Your task to perform on an android device: Go to Amazon Image 0: 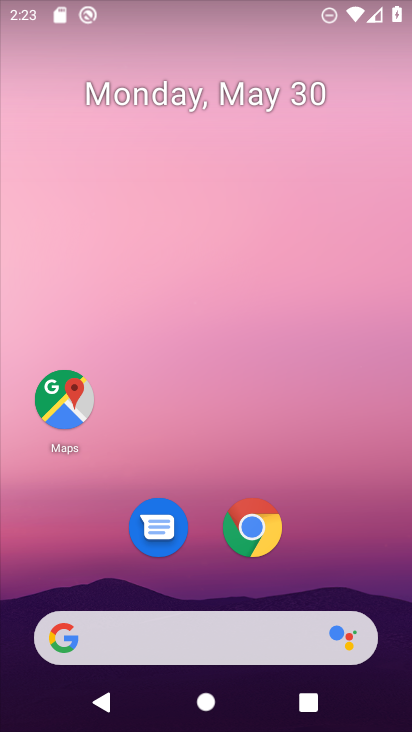
Step 0: drag from (306, 409) to (259, 115)
Your task to perform on an android device: Go to Amazon Image 1: 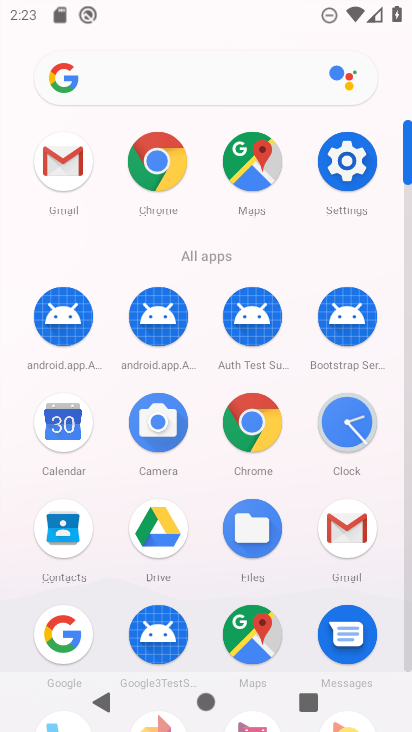
Step 1: click (167, 163)
Your task to perform on an android device: Go to Amazon Image 2: 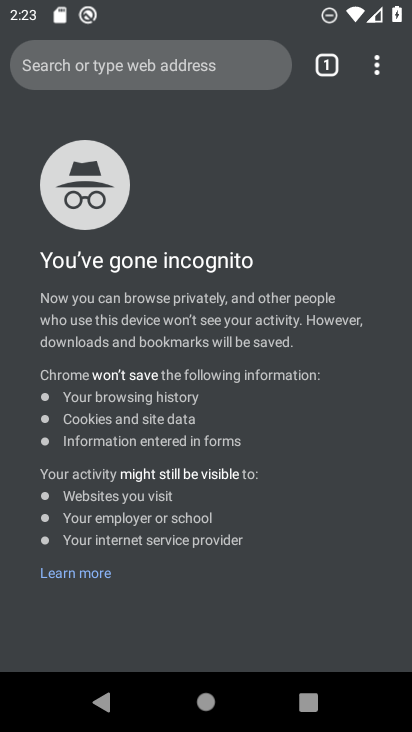
Step 2: drag from (375, 68) to (124, 120)
Your task to perform on an android device: Go to Amazon Image 3: 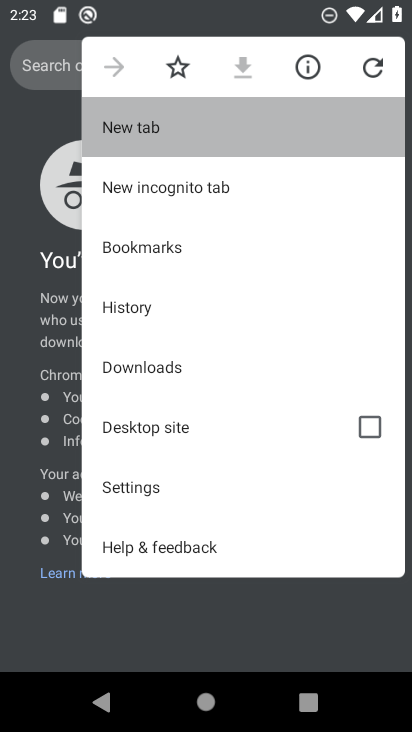
Step 3: click (124, 120)
Your task to perform on an android device: Go to Amazon Image 4: 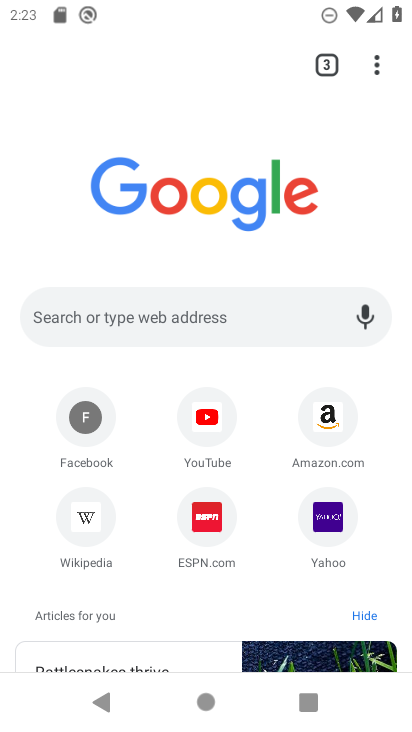
Step 4: click (325, 420)
Your task to perform on an android device: Go to Amazon Image 5: 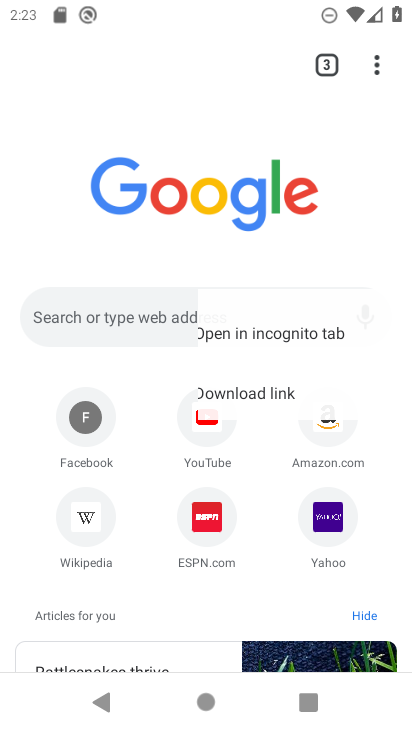
Step 5: click (329, 419)
Your task to perform on an android device: Go to Amazon Image 6: 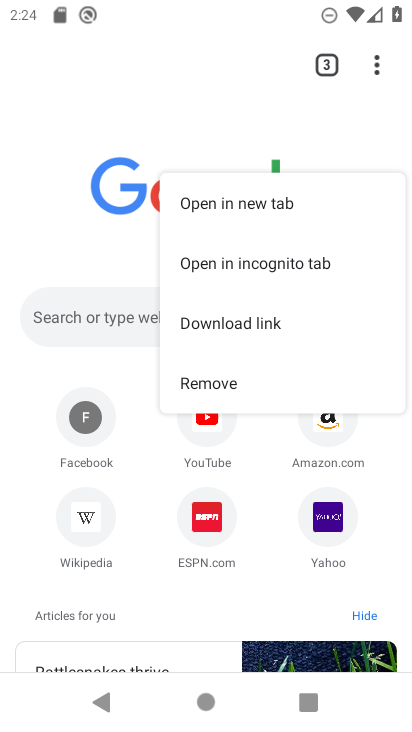
Step 6: click (332, 418)
Your task to perform on an android device: Go to Amazon Image 7: 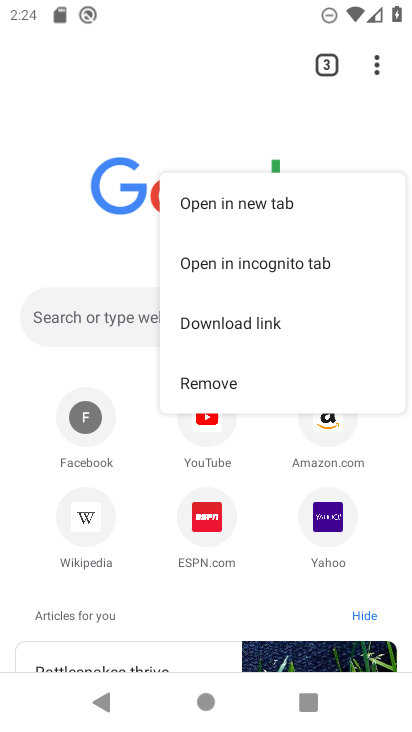
Step 7: click (331, 421)
Your task to perform on an android device: Go to Amazon Image 8: 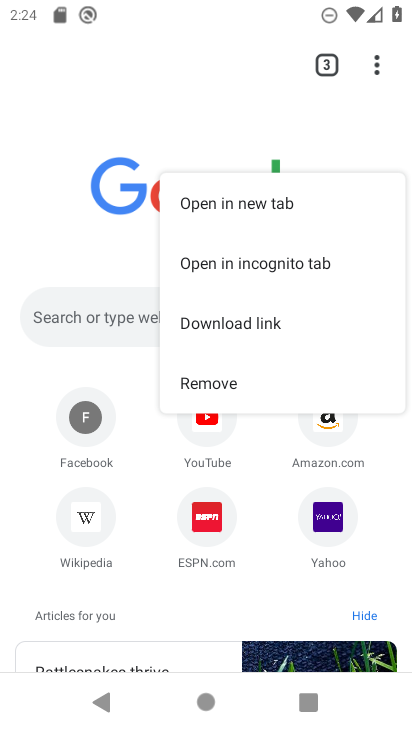
Step 8: click (331, 421)
Your task to perform on an android device: Go to Amazon Image 9: 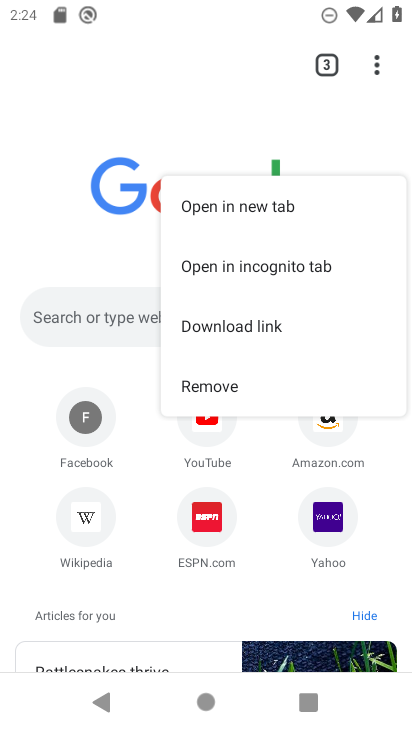
Step 9: click (334, 424)
Your task to perform on an android device: Go to Amazon Image 10: 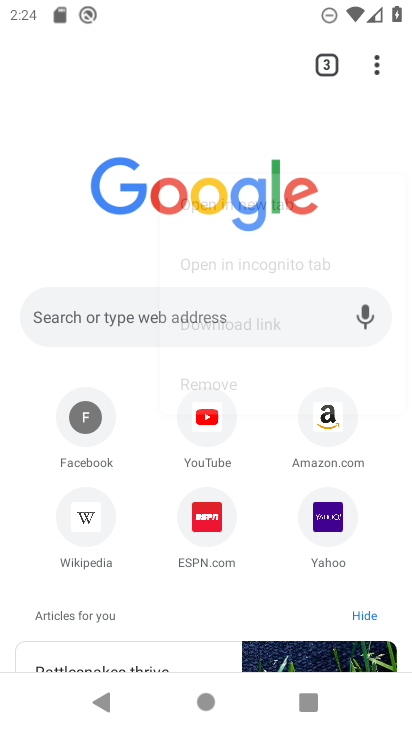
Step 10: click (334, 424)
Your task to perform on an android device: Go to Amazon Image 11: 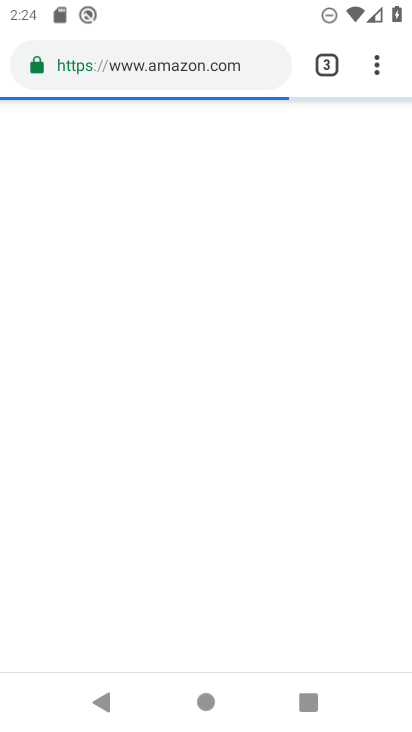
Step 11: click (339, 421)
Your task to perform on an android device: Go to Amazon Image 12: 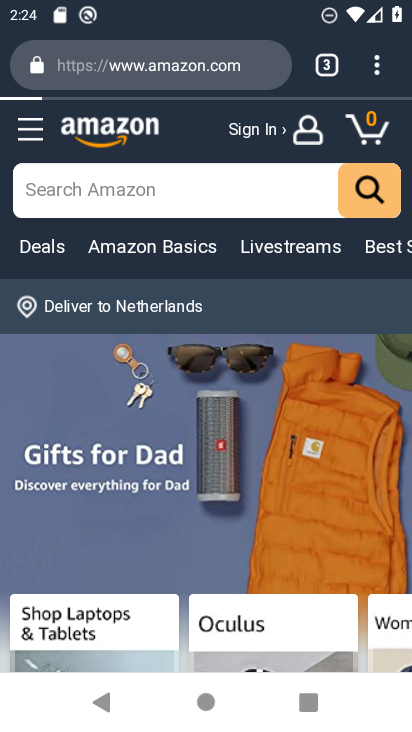
Step 12: task complete